Your task to perform on an android device: open the mobile data screen to see how much data has been used Image 0: 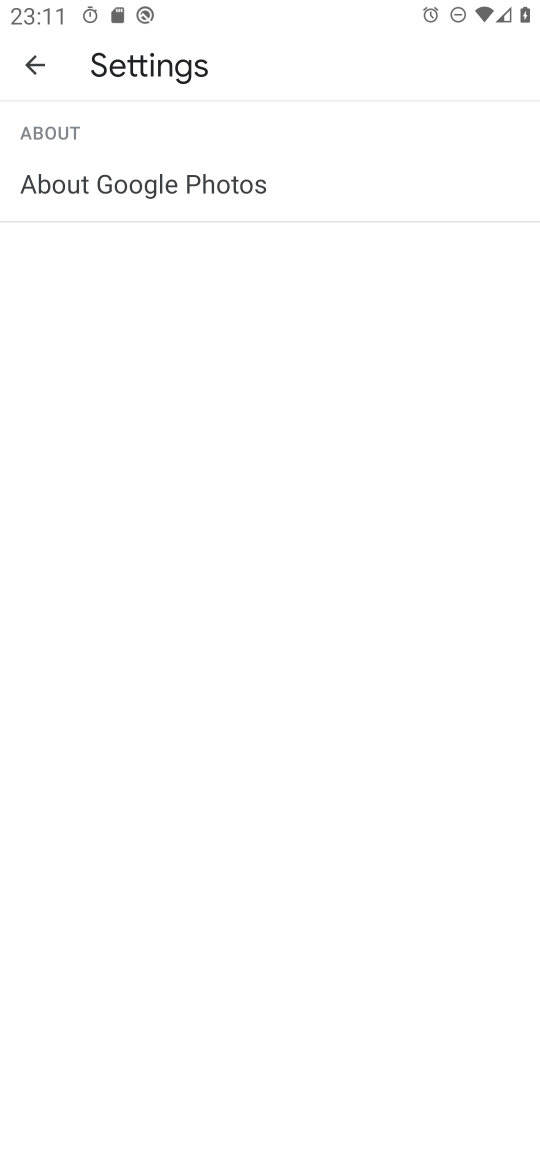
Step 0: press home button
Your task to perform on an android device: open the mobile data screen to see how much data has been used Image 1: 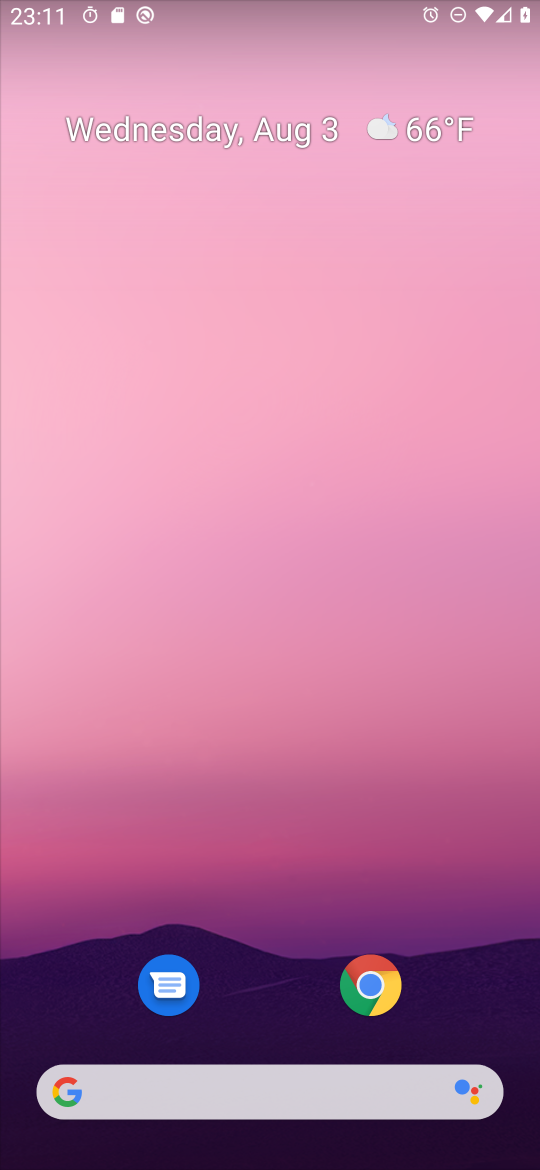
Step 1: drag from (301, 965) to (300, 404)
Your task to perform on an android device: open the mobile data screen to see how much data has been used Image 2: 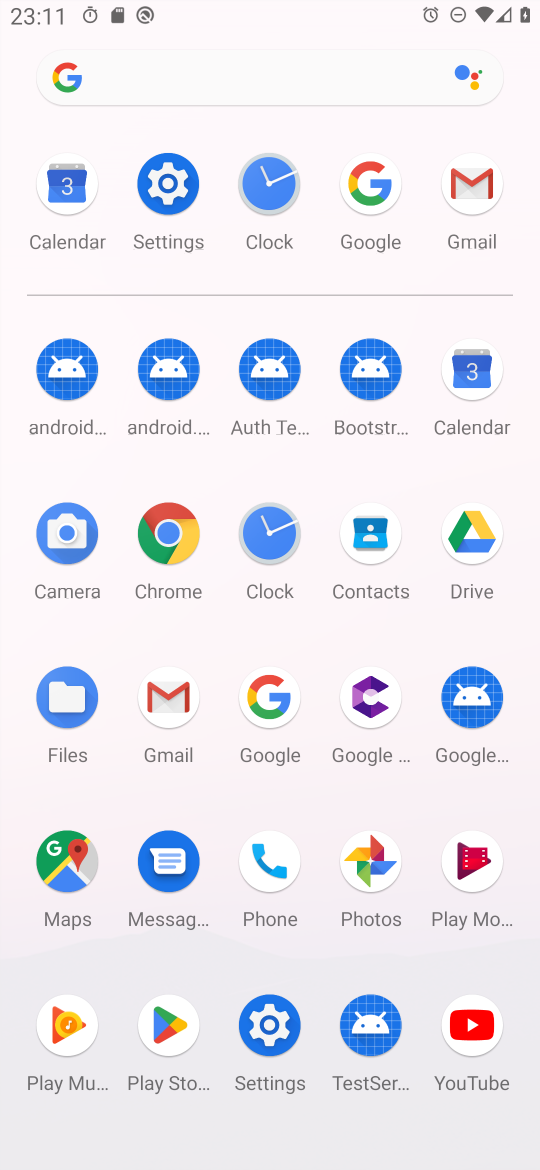
Step 2: click (179, 182)
Your task to perform on an android device: open the mobile data screen to see how much data has been used Image 3: 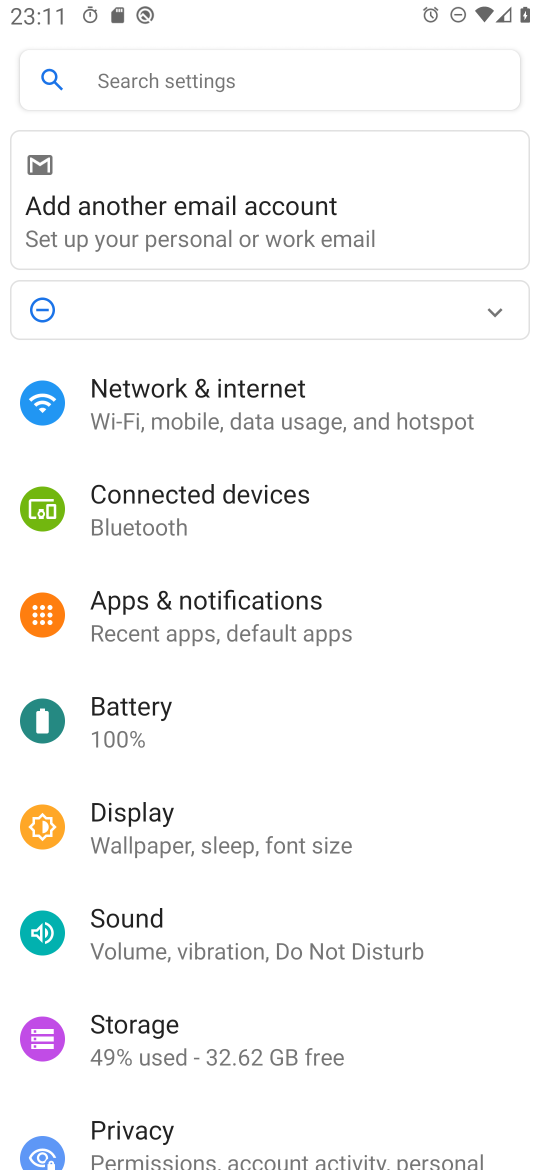
Step 3: click (195, 399)
Your task to perform on an android device: open the mobile data screen to see how much data has been used Image 4: 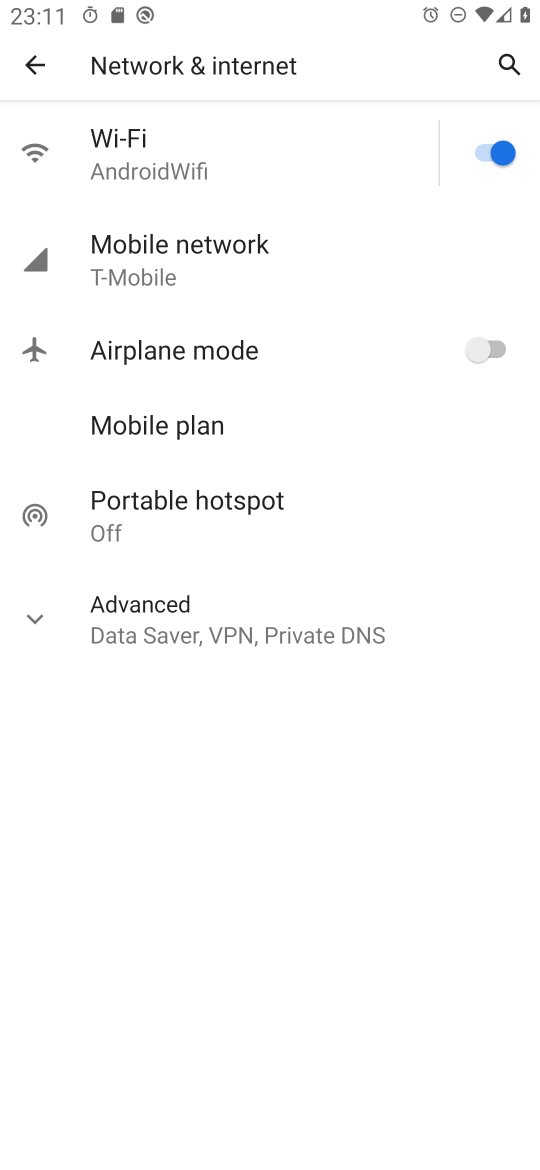
Step 4: click (185, 279)
Your task to perform on an android device: open the mobile data screen to see how much data has been used Image 5: 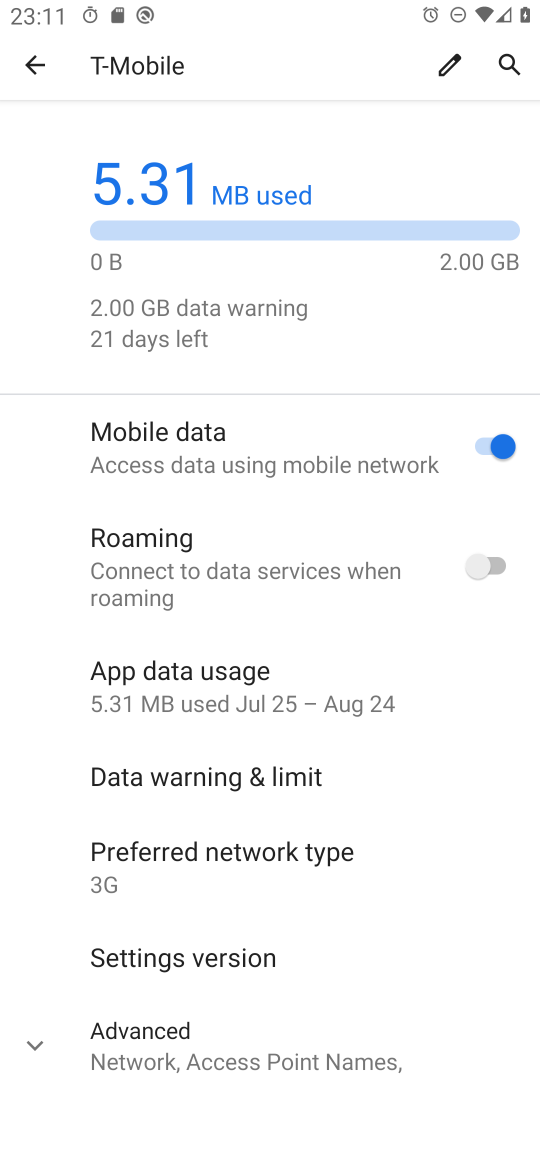
Step 5: click (259, 679)
Your task to perform on an android device: open the mobile data screen to see how much data has been used Image 6: 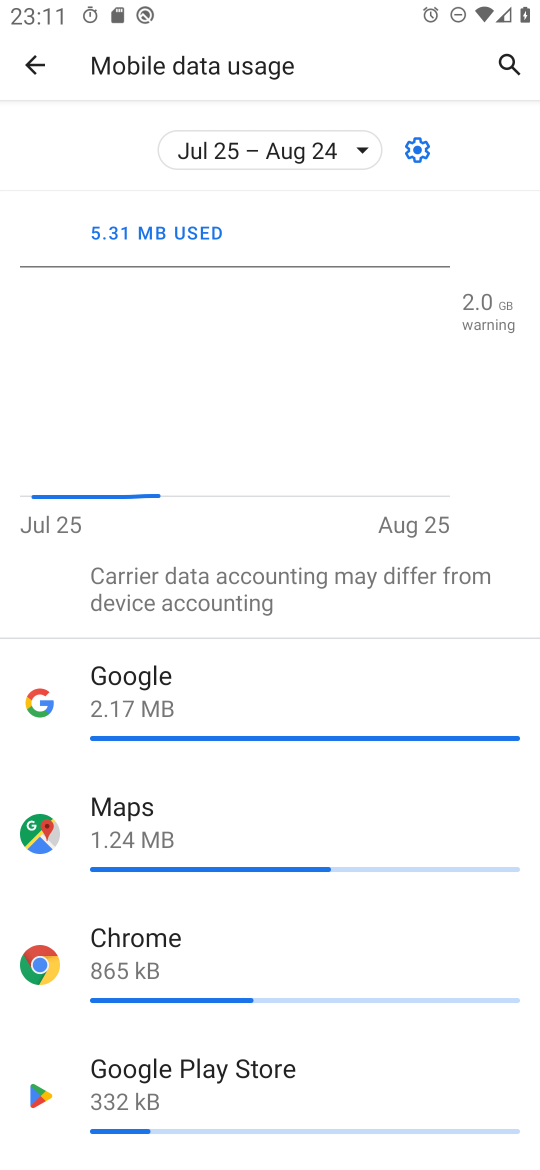
Step 6: task complete